Your task to perform on an android device: open app "HBO Max: Stream TV & Movies" (install if not already installed) and enter user name: "faring@outlook.com" and password: "appropriately" Image 0: 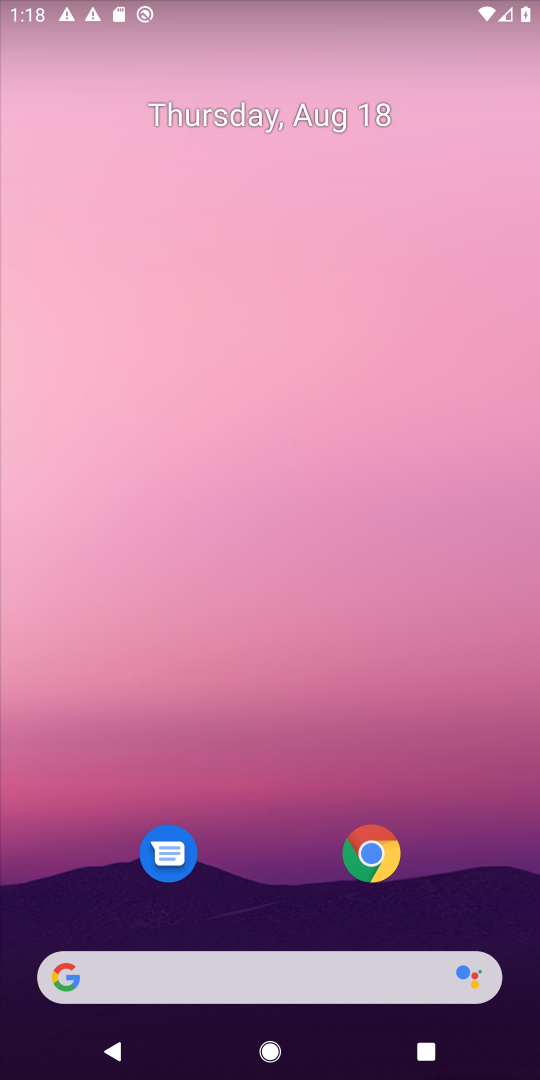
Step 0: drag from (326, 935) to (440, 98)
Your task to perform on an android device: open app "HBO Max: Stream TV & Movies" (install if not already installed) and enter user name: "faring@outlook.com" and password: "appropriately" Image 1: 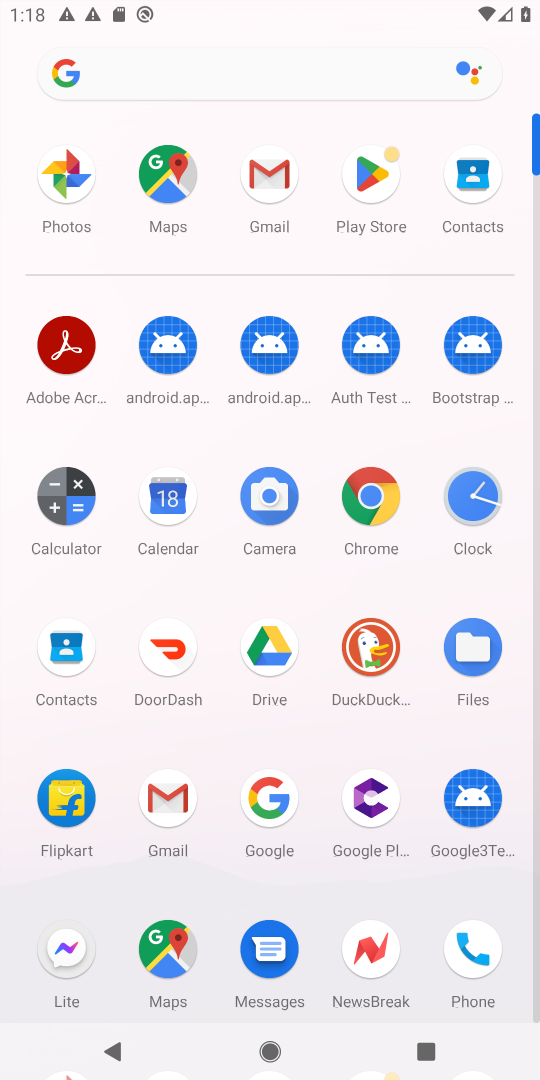
Step 1: click (360, 198)
Your task to perform on an android device: open app "HBO Max: Stream TV & Movies" (install if not already installed) and enter user name: "faring@outlook.com" and password: "appropriately" Image 2: 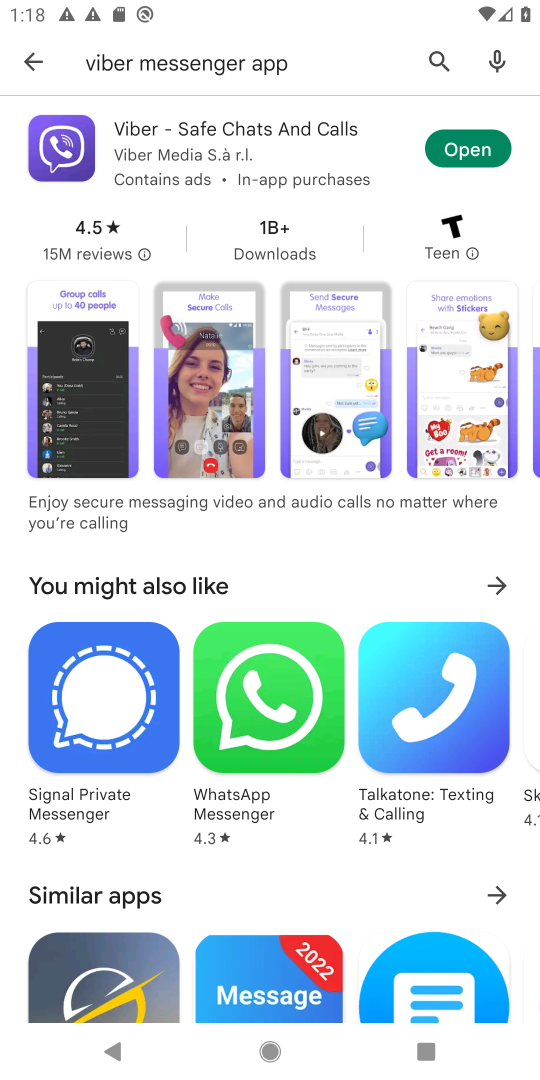
Step 2: click (40, 68)
Your task to perform on an android device: open app "HBO Max: Stream TV & Movies" (install if not already installed) and enter user name: "faring@outlook.com" and password: "appropriately" Image 3: 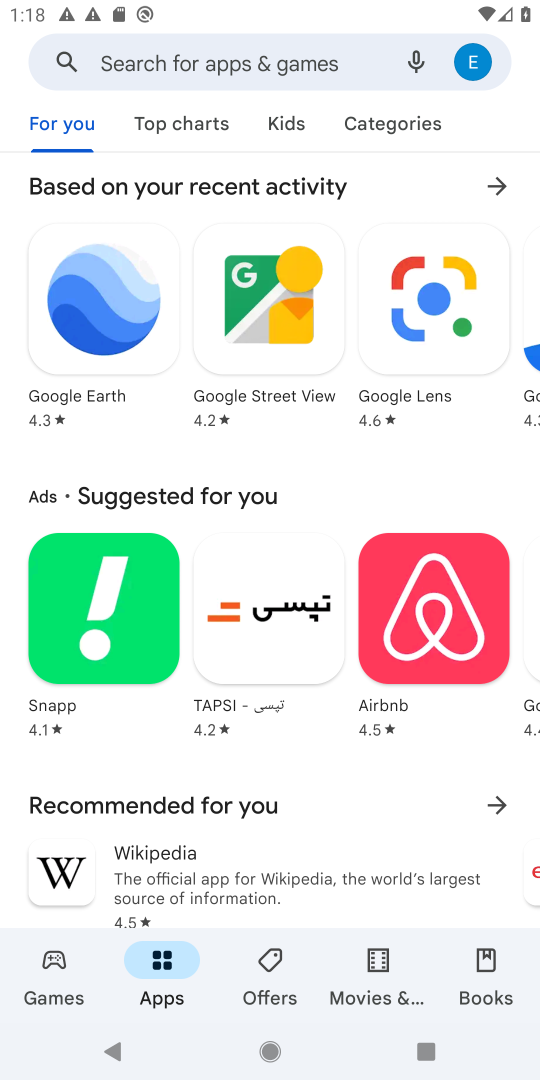
Step 3: click (142, 74)
Your task to perform on an android device: open app "HBO Max: Stream TV & Movies" (install if not already installed) and enter user name: "faring@outlook.com" and password: "appropriately" Image 4: 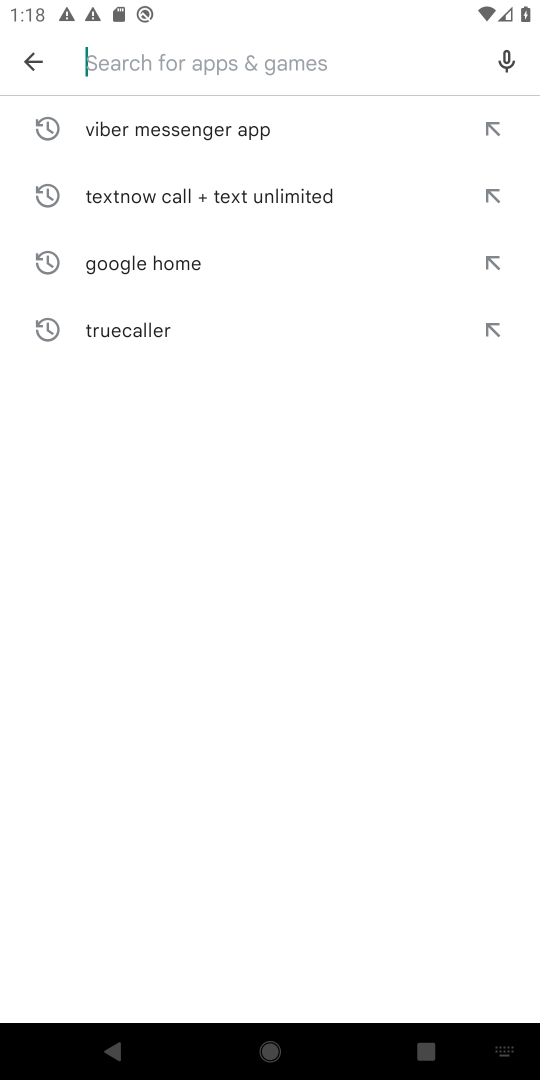
Step 4: type "HBO Max: Stream TV & Movies"
Your task to perform on an android device: open app "HBO Max: Stream TV & Movies" (install if not already installed) and enter user name: "faring@outlook.com" and password: "appropriately" Image 5: 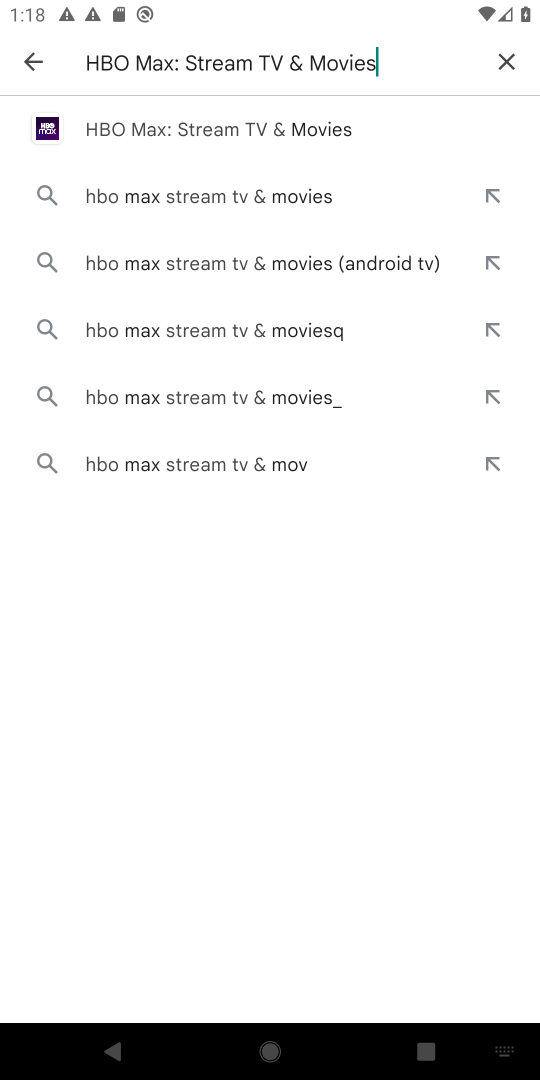
Step 5: type ""
Your task to perform on an android device: open app "HBO Max: Stream TV & Movies" (install if not already installed) and enter user name: "faring@outlook.com" and password: "appropriately" Image 6: 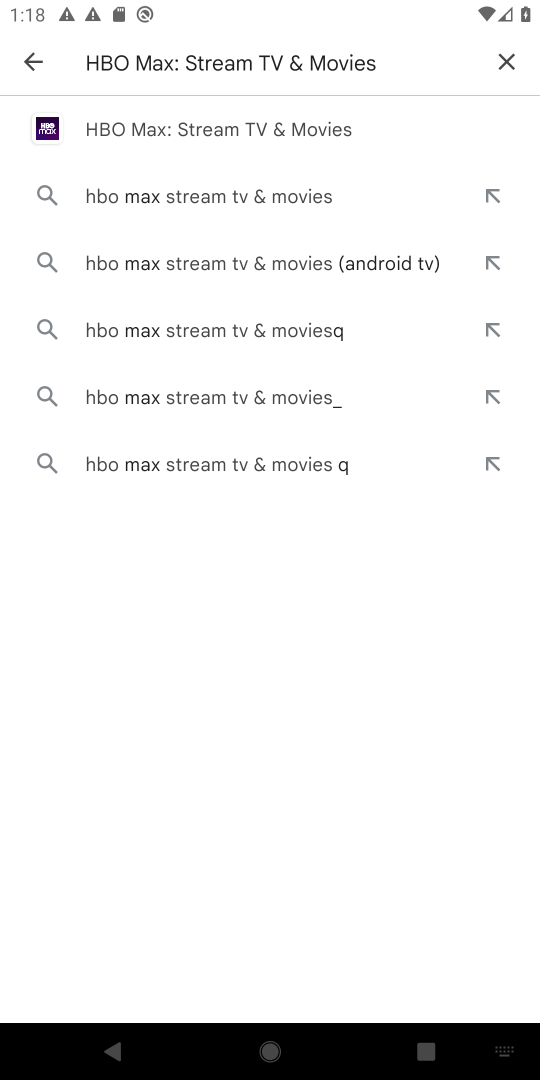
Step 6: click (248, 131)
Your task to perform on an android device: open app "HBO Max: Stream TV & Movies" (install if not already installed) and enter user name: "faring@outlook.com" and password: "appropriately" Image 7: 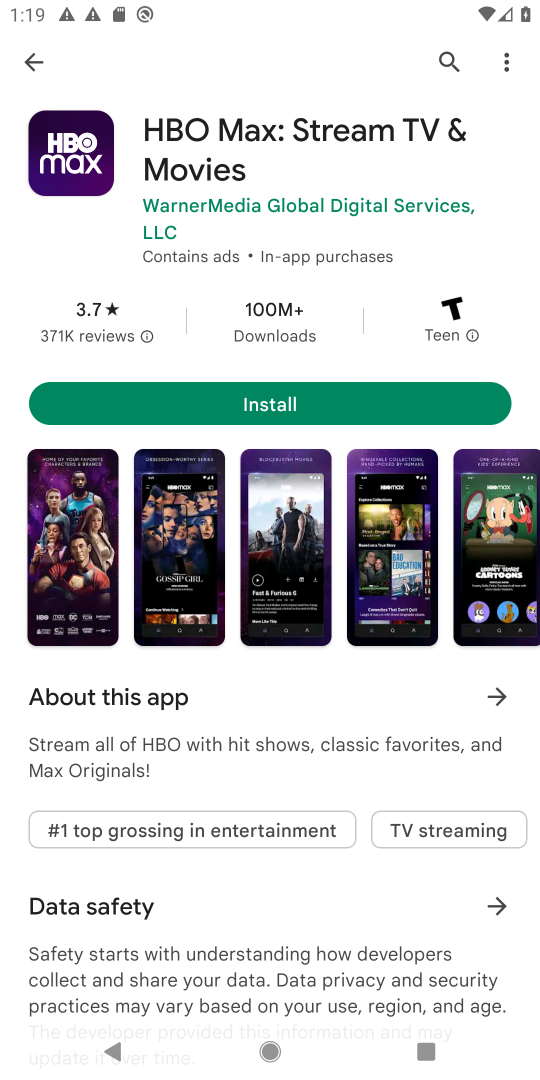
Step 7: click (308, 407)
Your task to perform on an android device: open app "HBO Max: Stream TV & Movies" (install if not already installed) and enter user name: "faring@outlook.com" and password: "appropriately" Image 8: 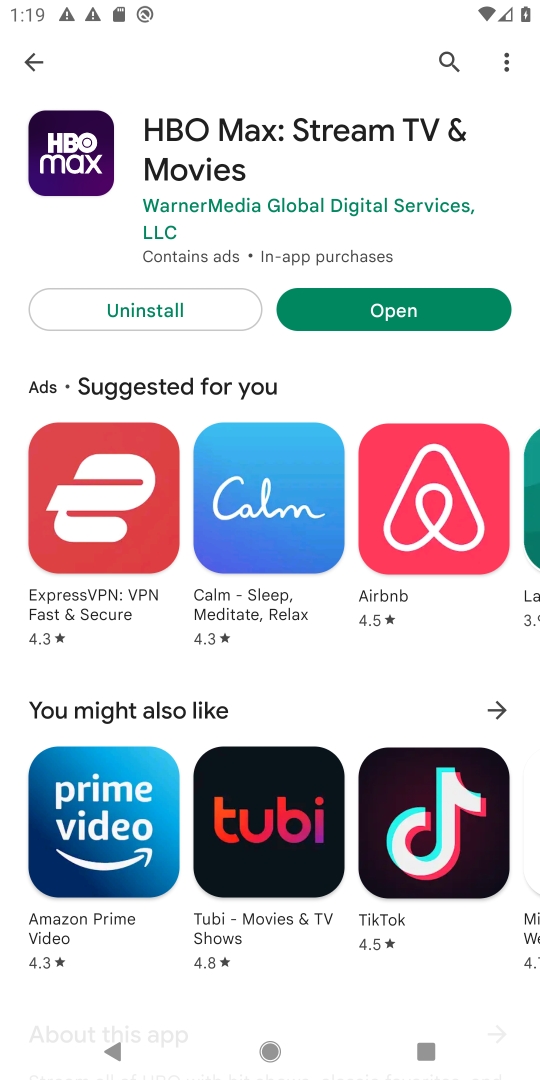
Step 8: click (380, 314)
Your task to perform on an android device: open app "HBO Max: Stream TV & Movies" (install if not already installed) and enter user name: "faring@outlook.com" and password: "appropriately" Image 9: 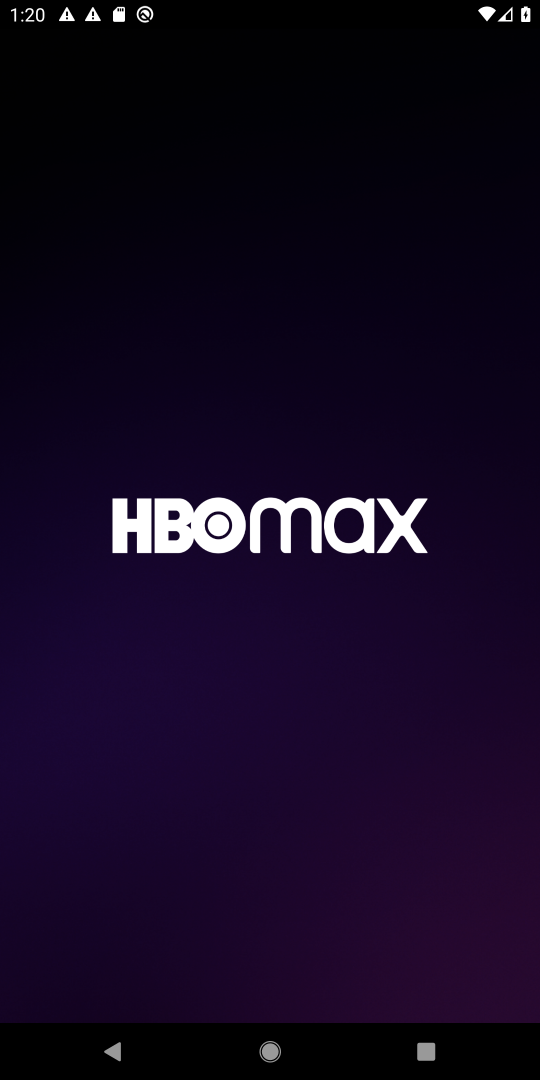
Step 9: task complete